Your task to perform on an android device: See recent photos Image 0: 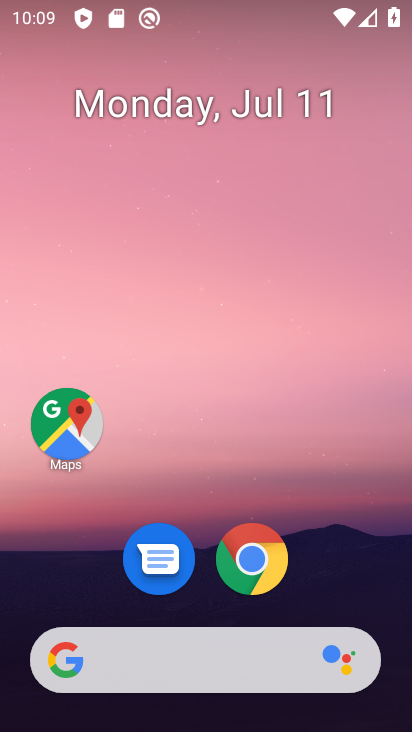
Step 0: drag from (355, 576) to (354, 139)
Your task to perform on an android device: See recent photos Image 1: 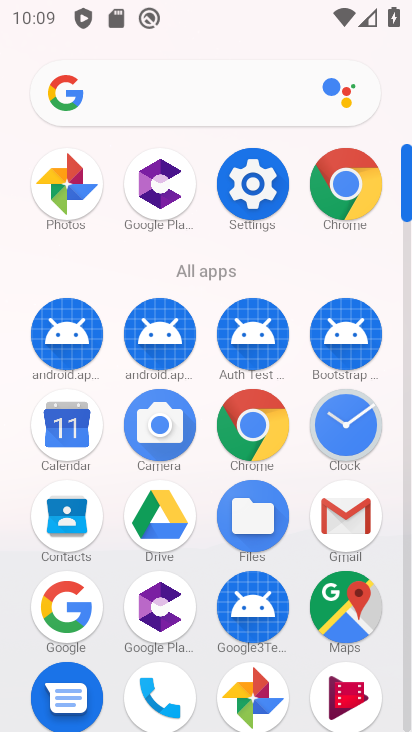
Step 1: click (69, 190)
Your task to perform on an android device: See recent photos Image 2: 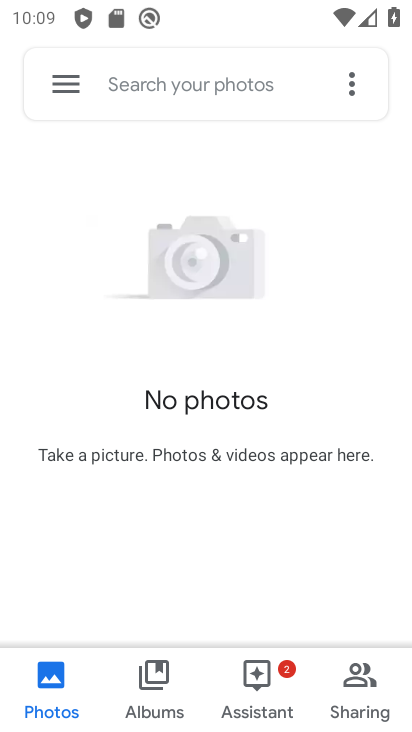
Step 2: task complete